Your task to perform on an android device: snooze an email in the gmail app Image 0: 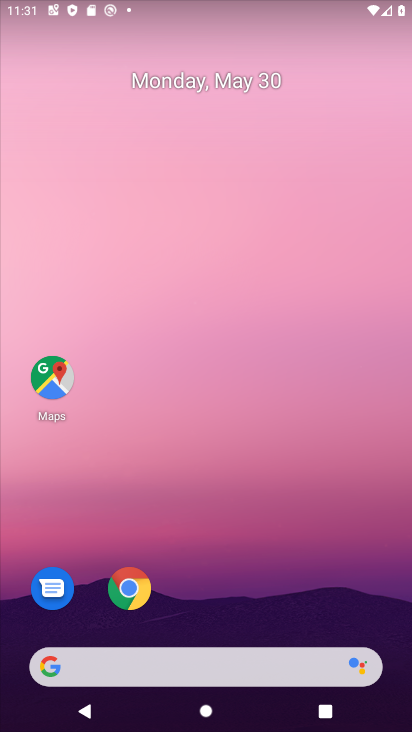
Step 0: drag from (215, 622) to (221, 57)
Your task to perform on an android device: snooze an email in the gmail app Image 1: 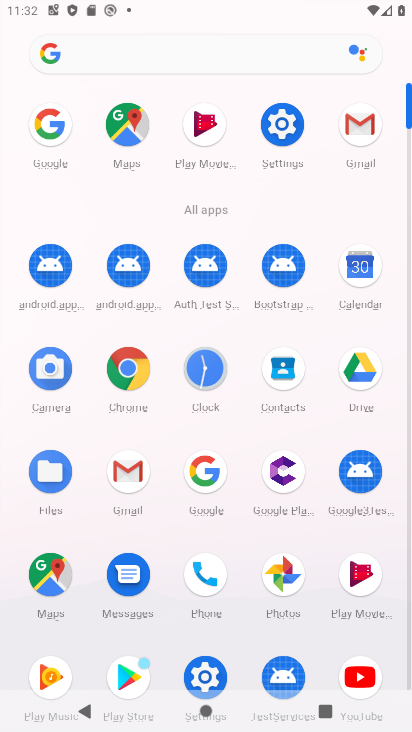
Step 1: click (368, 126)
Your task to perform on an android device: snooze an email in the gmail app Image 2: 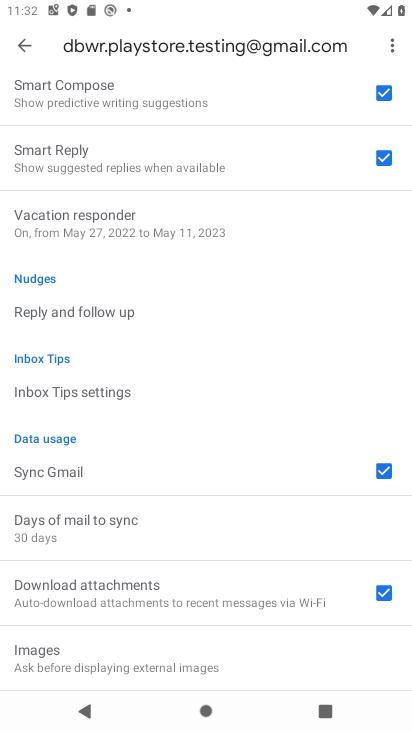
Step 2: click (28, 48)
Your task to perform on an android device: snooze an email in the gmail app Image 3: 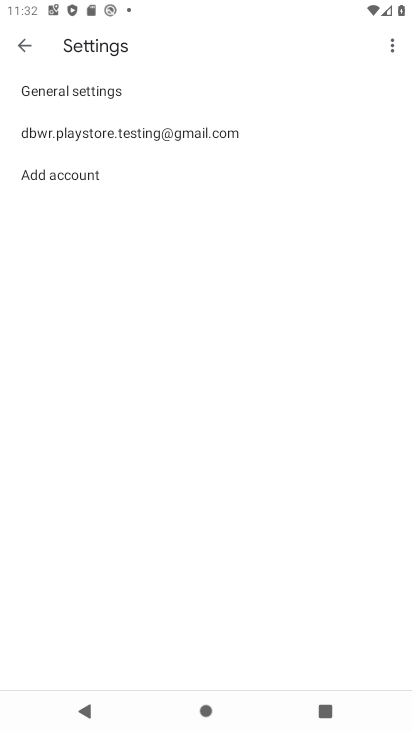
Step 3: click (22, 45)
Your task to perform on an android device: snooze an email in the gmail app Image 4: 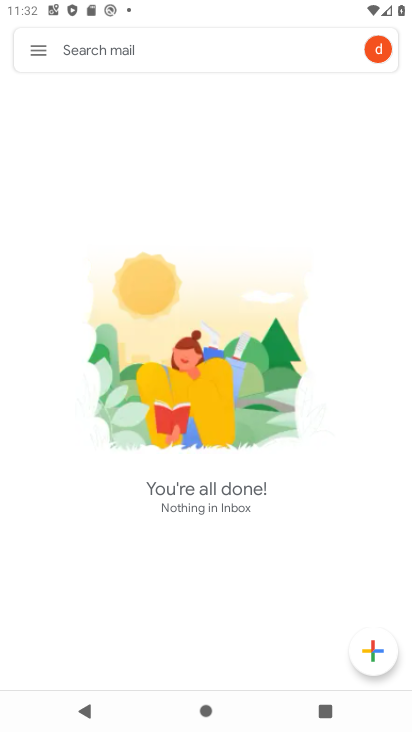
Step 4: task complete